Your task to perform on an android device: Search for Mexican restaurants on Maps Image 0: 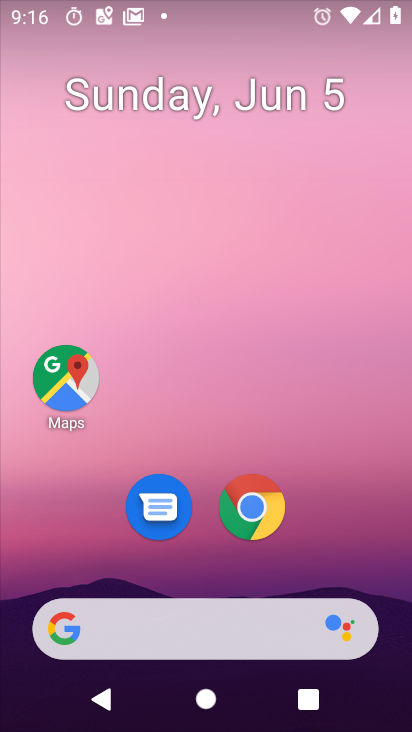
Step 0: drag from (224, 659) to (204, 163)
Your task to perform on an android device: Search for Mexican restaurants on Maps Image 1: 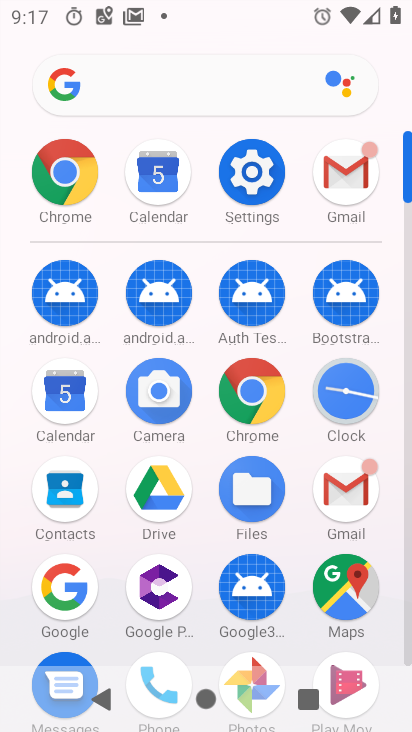
Step 1: click (314, 586)
Your task to perform on an android device: Search for Mexican restaurants on Maps Image 2: 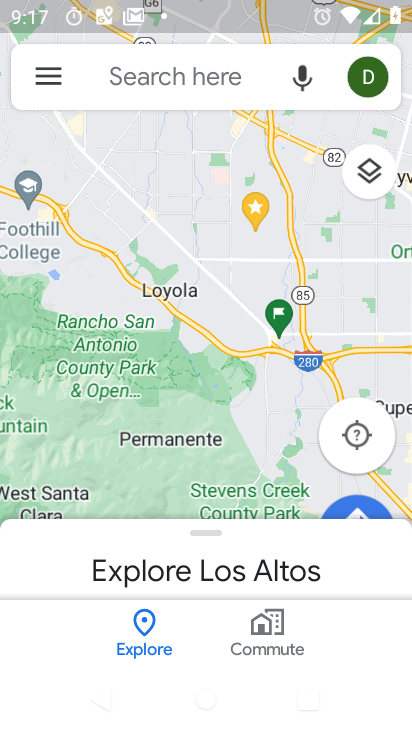
Step 2: click (173, 85)
Your task to perform on an android device: Search for Mexican restaurants on Maps Image 3: 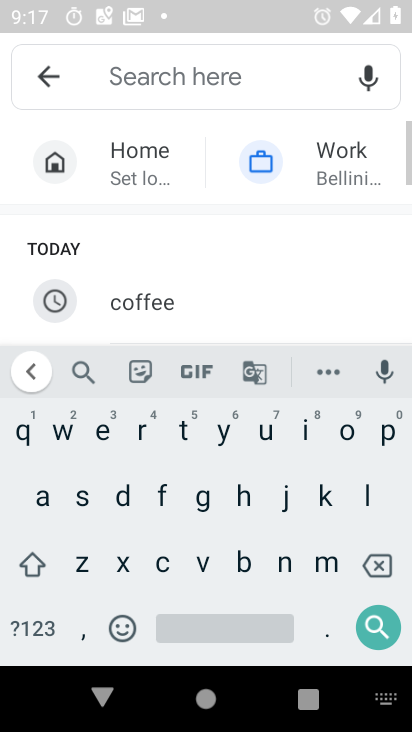
Step 3: click (328, 562)
Your task to perform on an android device: Search for Mexican restaurants on Maps Image 4: 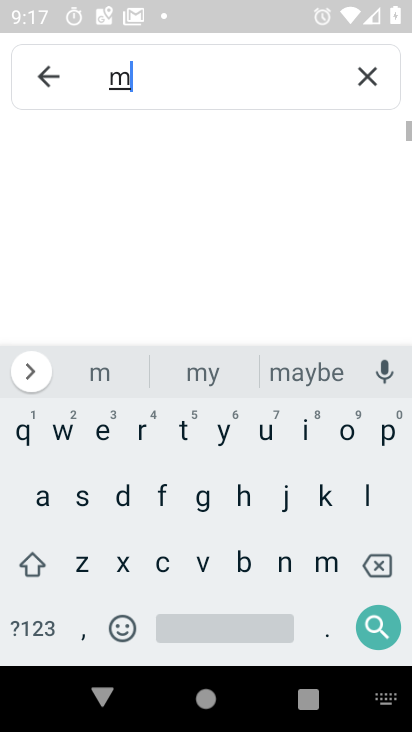
Step 4: click (158, 559)
Your task to perform on an android device: Search for Mexican restaurants on Maps Image 5: 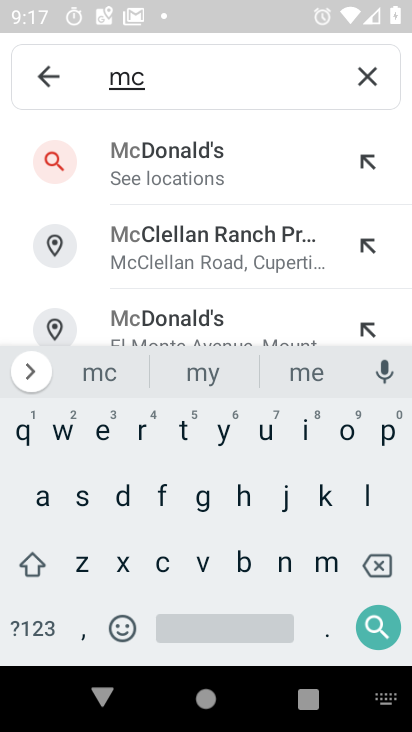
Step 5: click (375, 573)
Your task to perform on an android device: Search for Mexican restaurants on Maps Image 6: 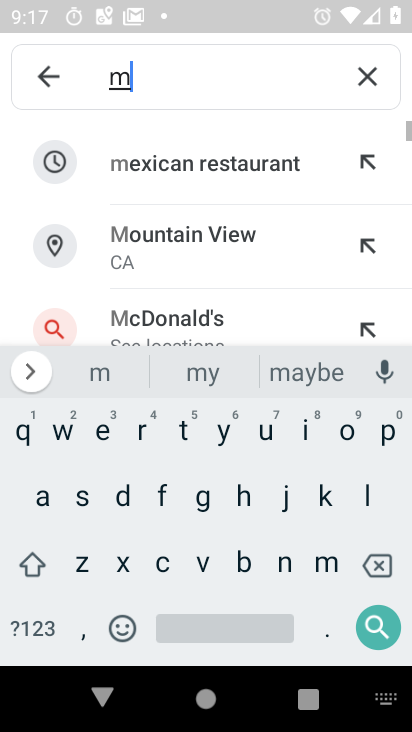
Step 6: click (182, 158)
Your task to perform on an android device: Search for Mexican restaurants on Maps Image 7: 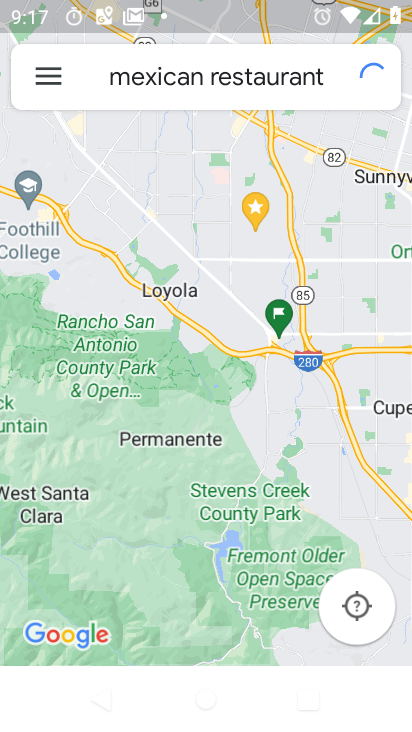
Step 7: task complete